Your task to perform on an android device: Open the stopwatch Image 0: 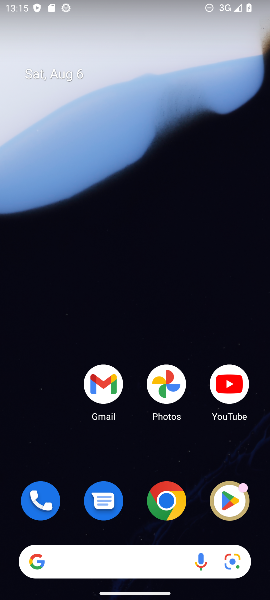
Step 0: drag from (145, 453) to (158, 71)
Your task to perform on an android device: Open the stopwatch Image 1: 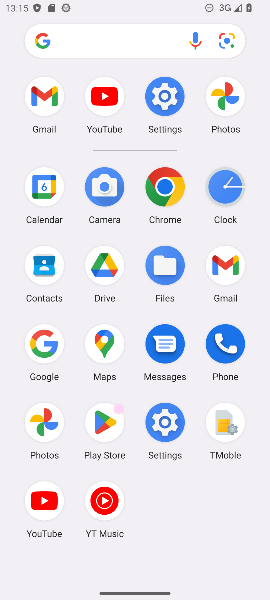
Step 1: click (223, 192)
Your task to perform on an android device: Open the stopwatch Image 2: 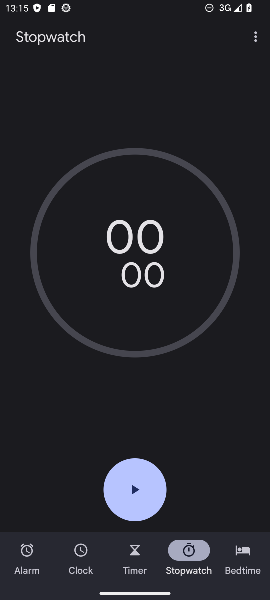
Step 2: click (184, 555)
Your task to perform on an android device: Open the stopwatch Image 3: 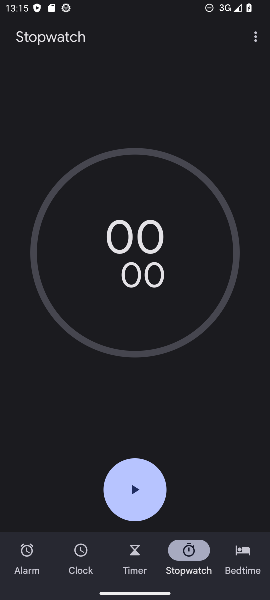
Step 3: task complete